Your task to perform on an android device: Go to battery settings Image 0: 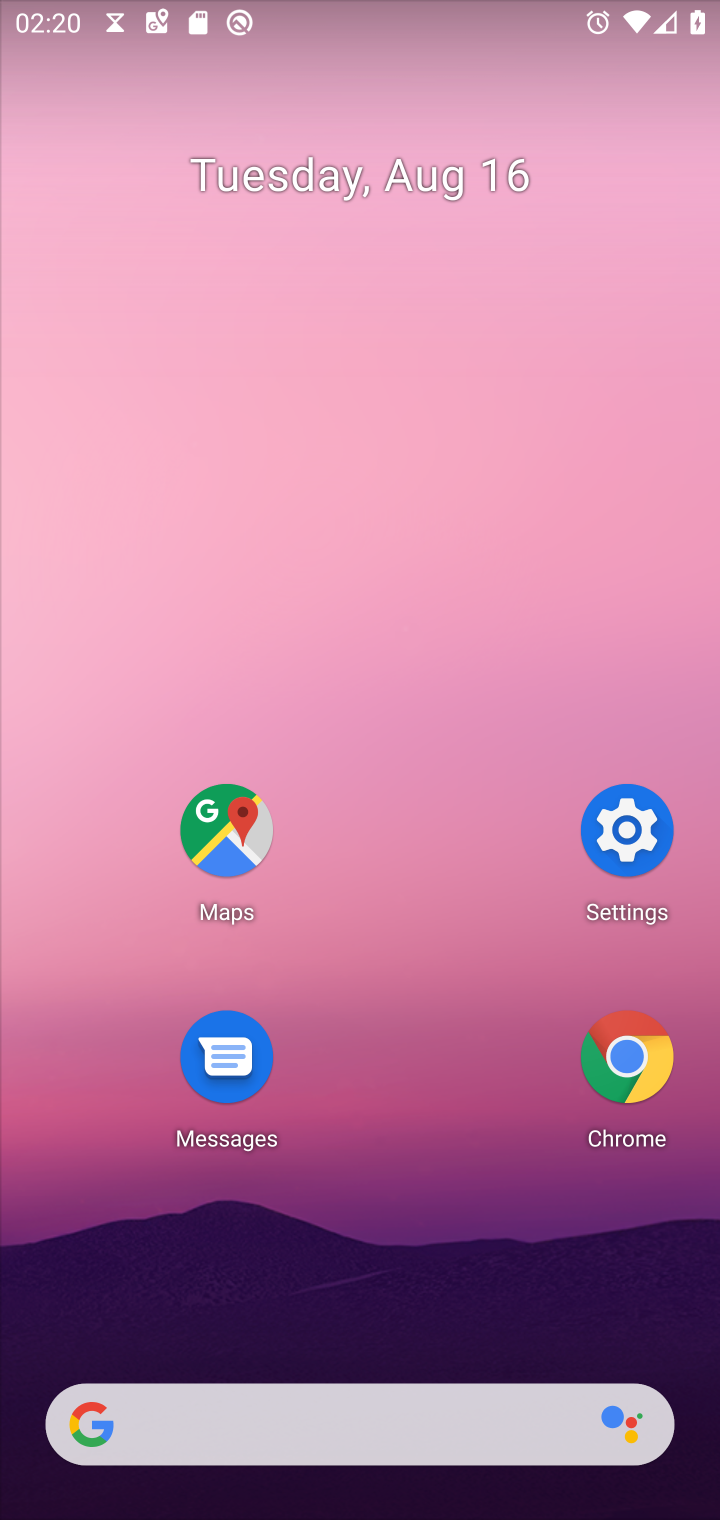
Step 0: press home button
Your task to perform on an android device: Go to battery settings Image 1: 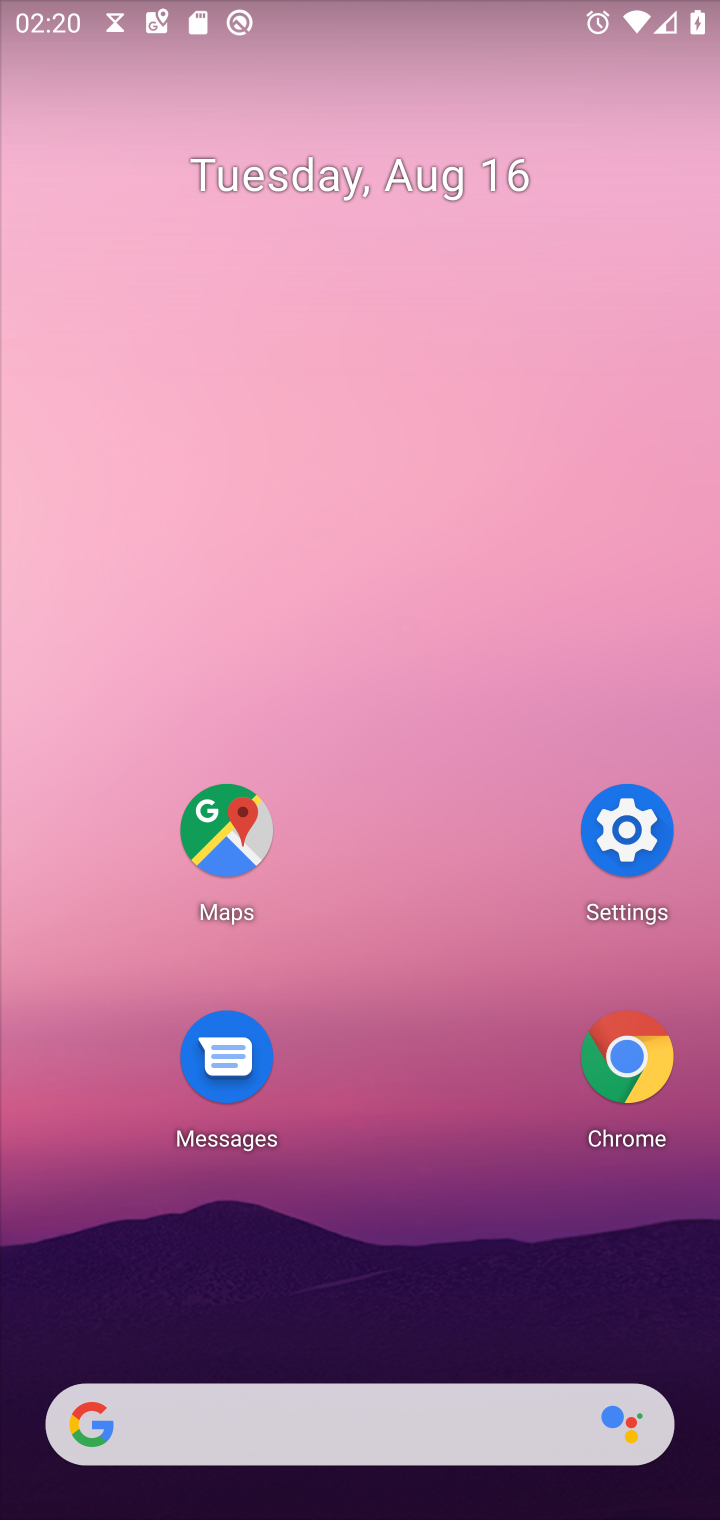
Step 1: click (653, 821)
Your task to perform on an android device: Go to battery settings Image 2: 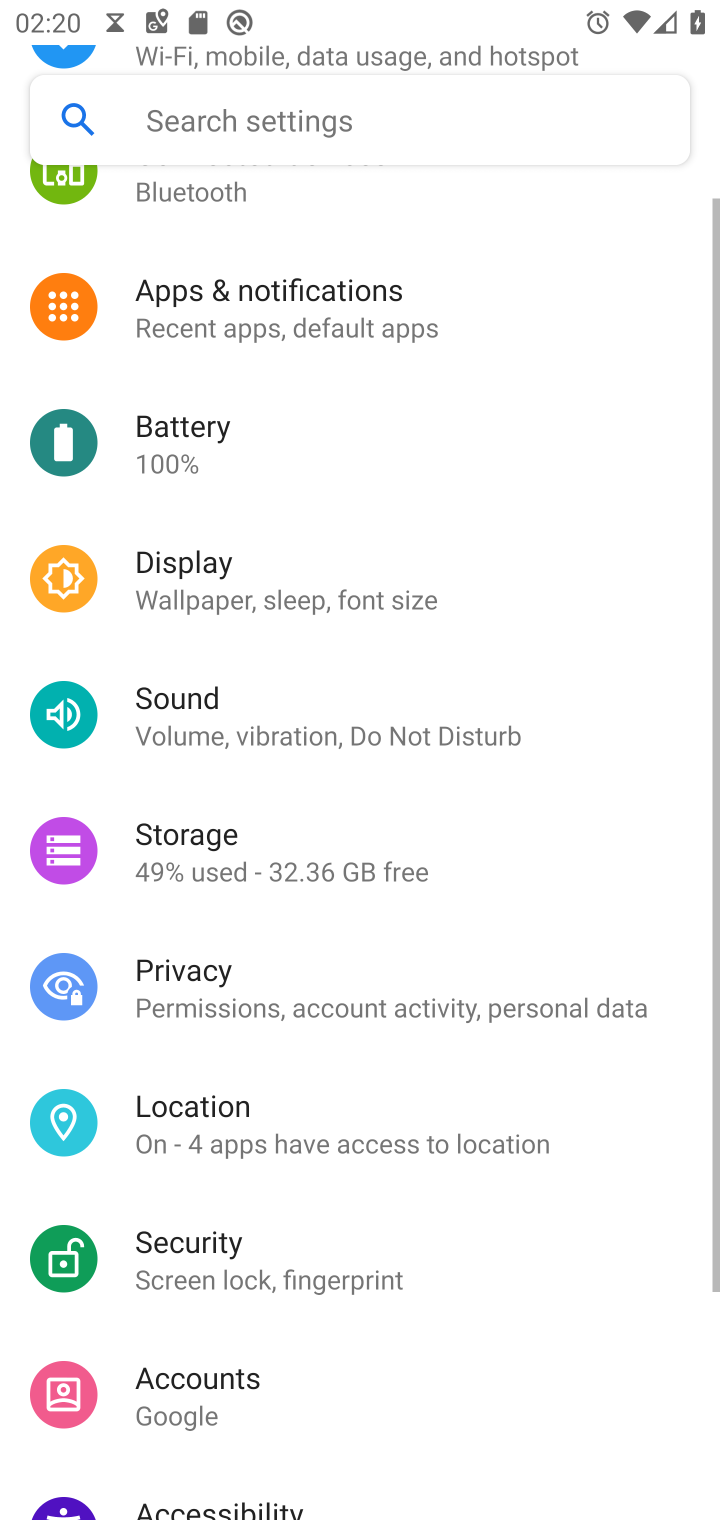
Step 2: click (633, 827)
Your task to perform on an android device: Go to battery settings Image 3: 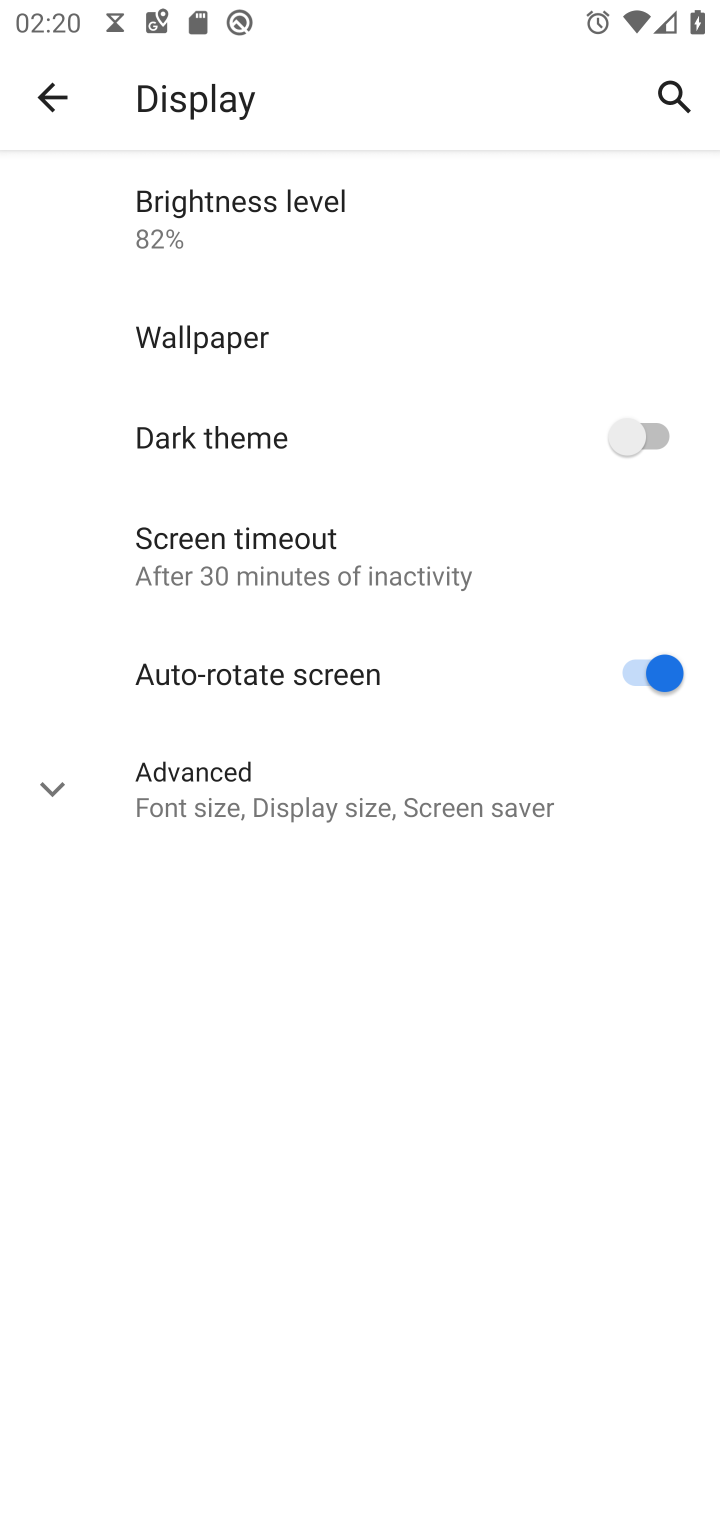
Step 3: click (46, 88)
Your task to perform on an android device: Go to battery settings Image 4: 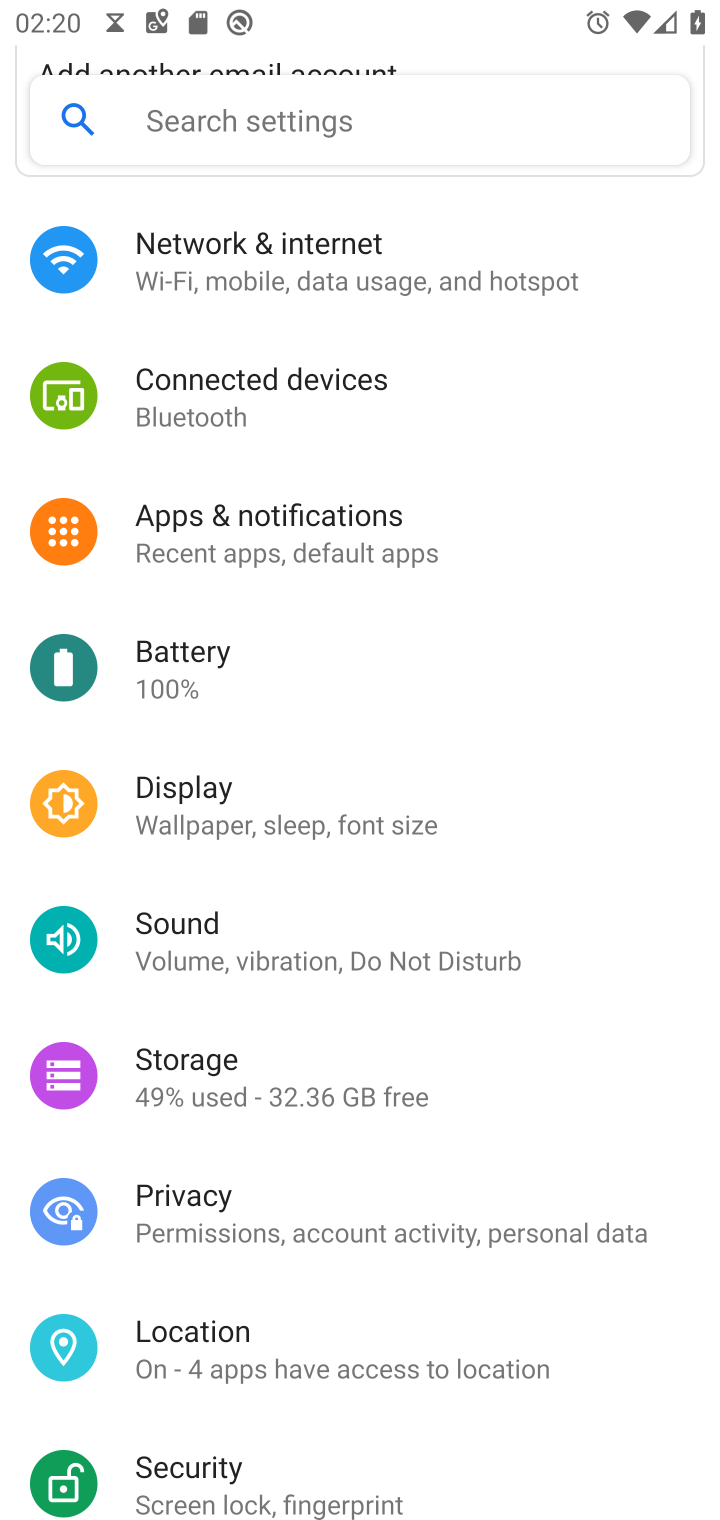
Step 4: click (200, 645)
Your task to perform on an android device: Go to battery settings Image 5: 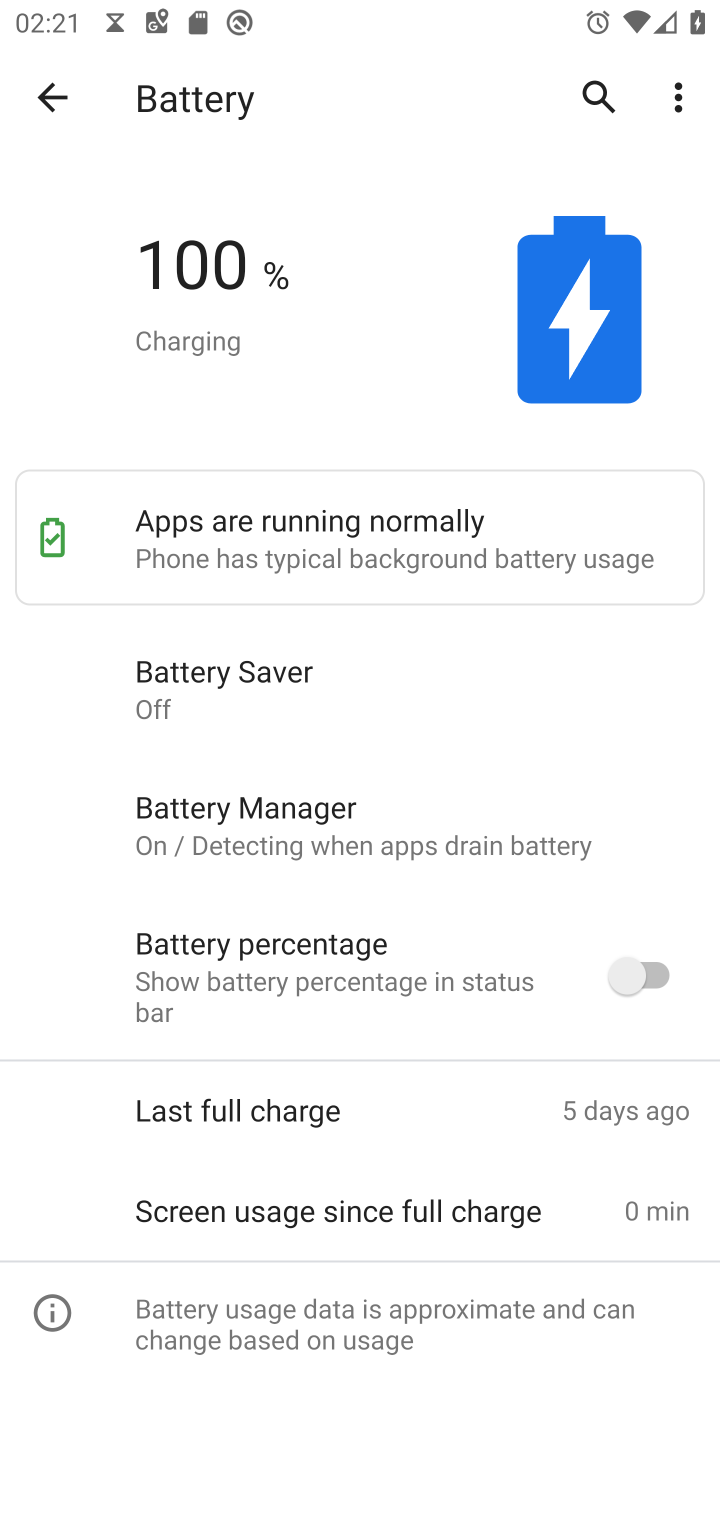
Step 5: task complete